Your task to perform on an android device: change the upload size in google photos Image 0: 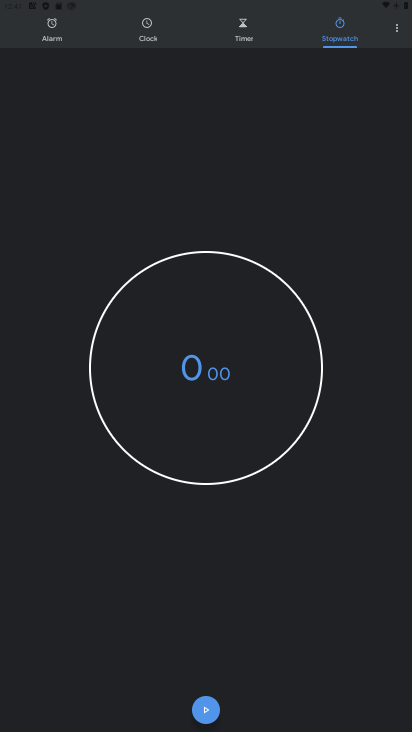
Step 0: press home button
Your task to perform on an android device: change the upload size in google photos Image 1: 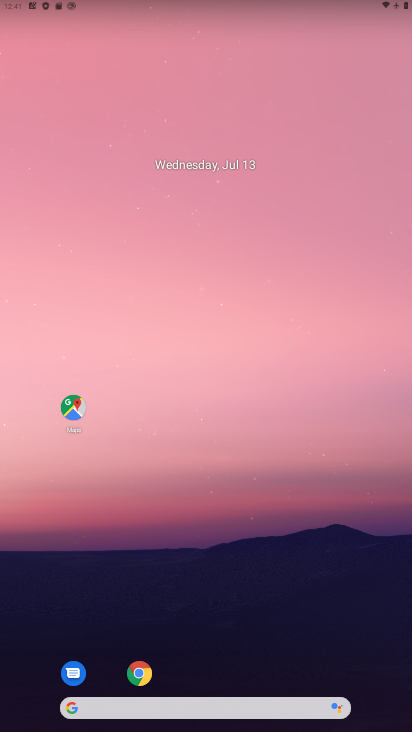
Step 1: drag from (252, 624) to (257, 119)
Your task to perform on an android device: change the upload size in google photos Image 2: 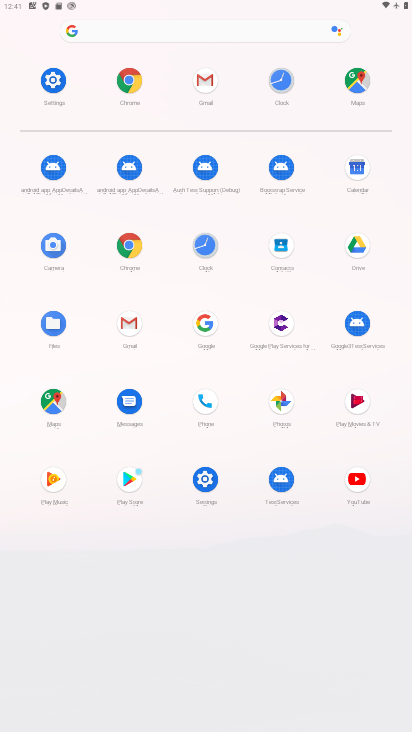
Step 2: click (260, 395)
Your task to perform on an android device: change the upload size in google photos Image 3: 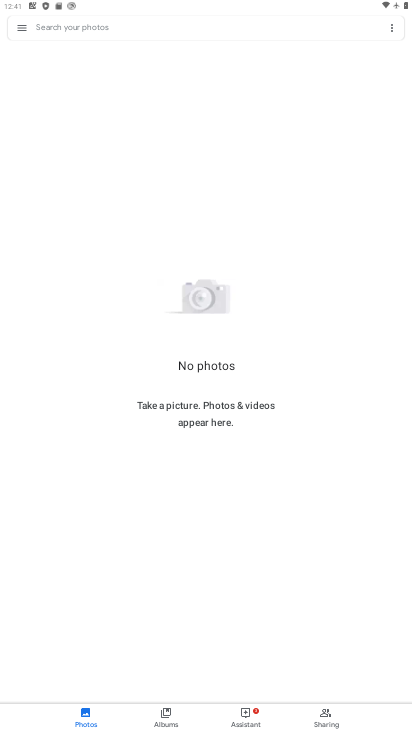
Step 3: click (396, 29)
Your task to perform on an android device: change the upload size in google photos Image 4: 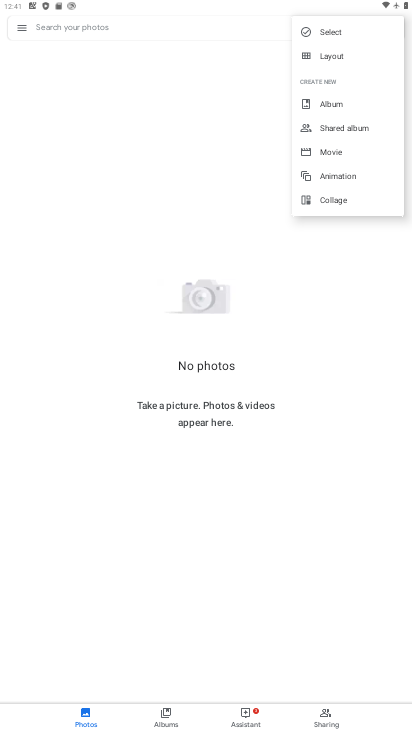
Step 4: click (16, 29)
Your task to perform on an android device: change the upload size in google photos Image 5: 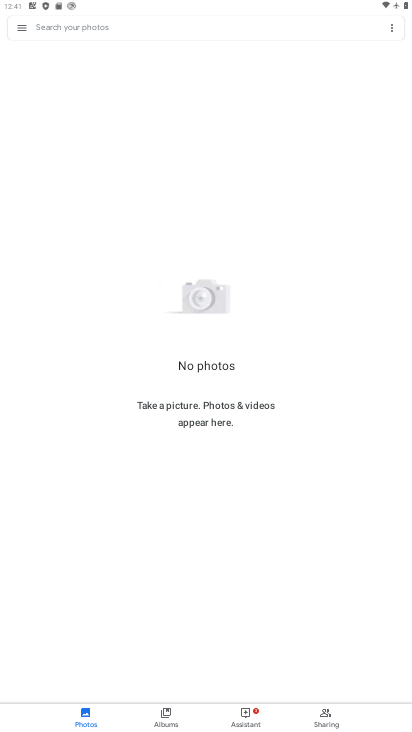
Step 5: click (24, 31)
Your task to perform on an android device: change the upload size in google photos Image 6: 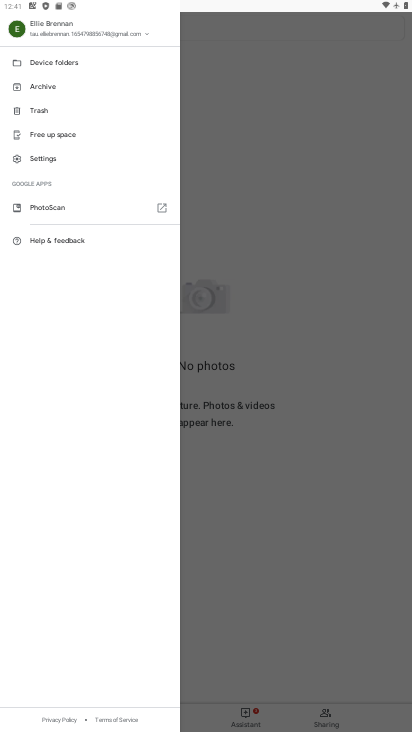
Step 6: click (67, 161)
Your task to perform on an android device: change the upload size in google photos Image 7: 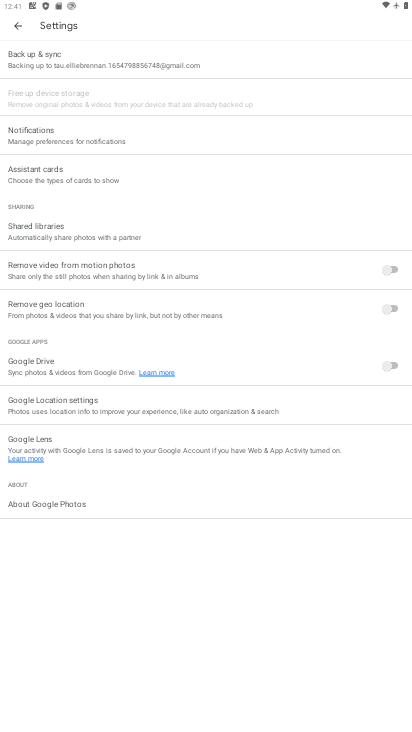
Step 7: task complete